Your task to perform on an android device: Clear the shopping cart on ebay. Add logitech g903 to the cart on ebay, then select checkout. Image 0: 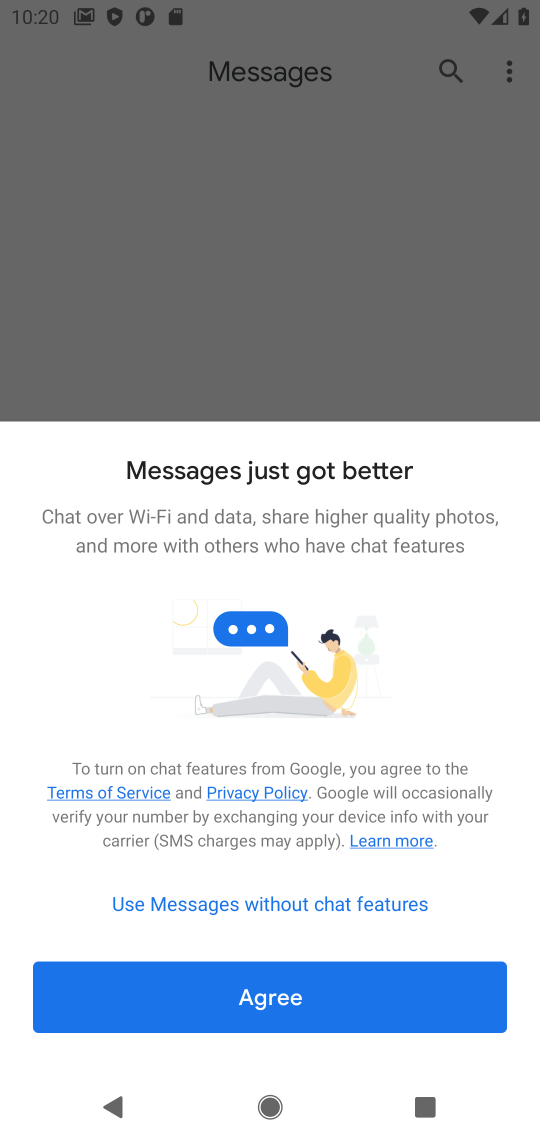
Step 0: press home button
Your task to perform on an android device: Clear the shopping cart on ebay. Add logitech g903 to the cart on ebay, then select checkout. Image 1: 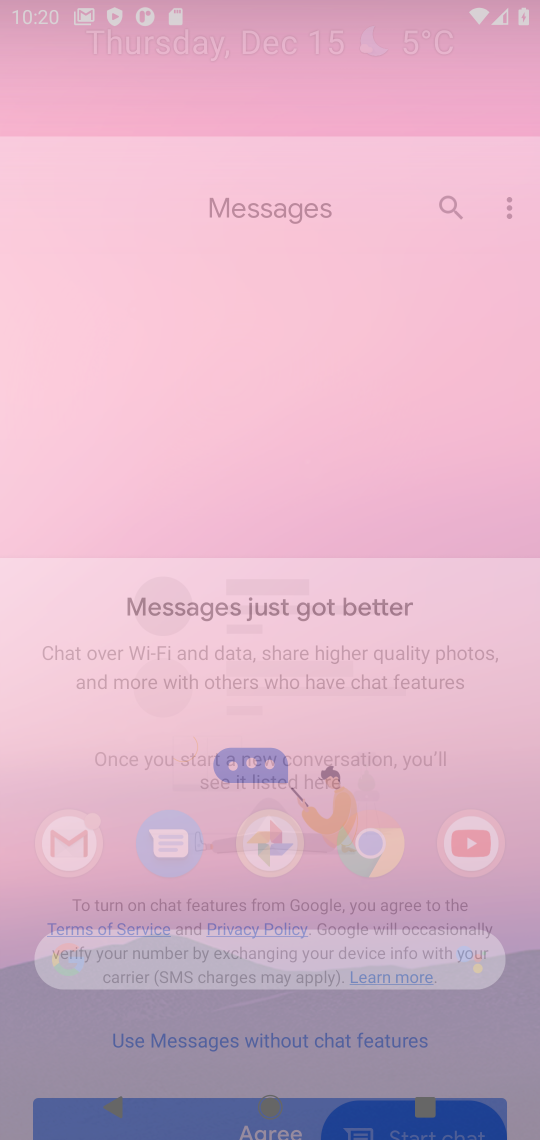
Step 1: press home button
Your task to perform on an android device: Clear the shopping cart on ebay. Add logitech g903 to the cart on ebay, then select checkout. Image 2: 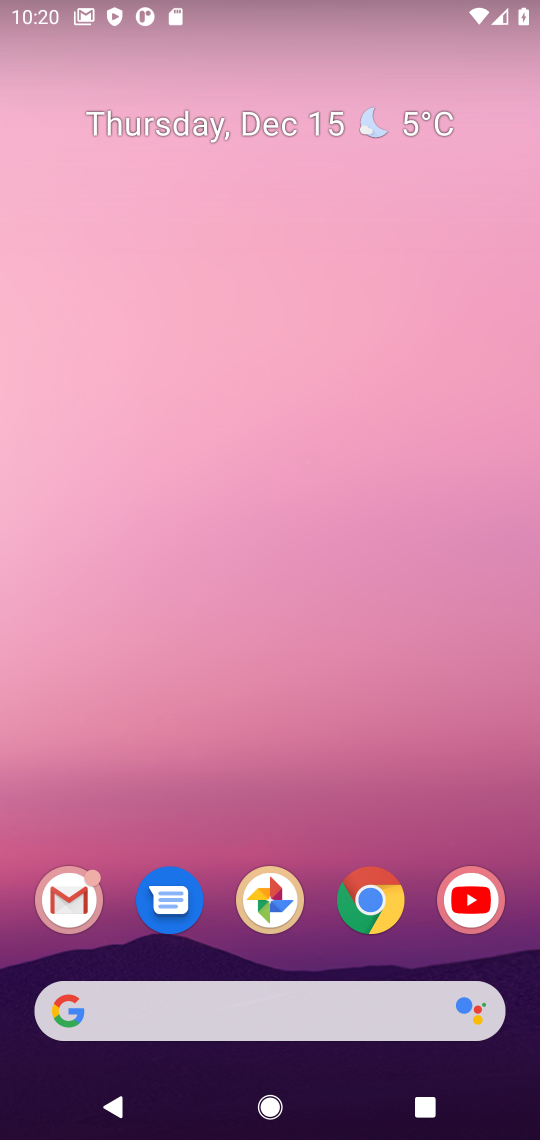
Step 2: click (350, 917)
Your task to perform on an android device: Clear the shopping cart on ebay. Add logitech g903 to the cart on ebay, then select checkout. Image 3: 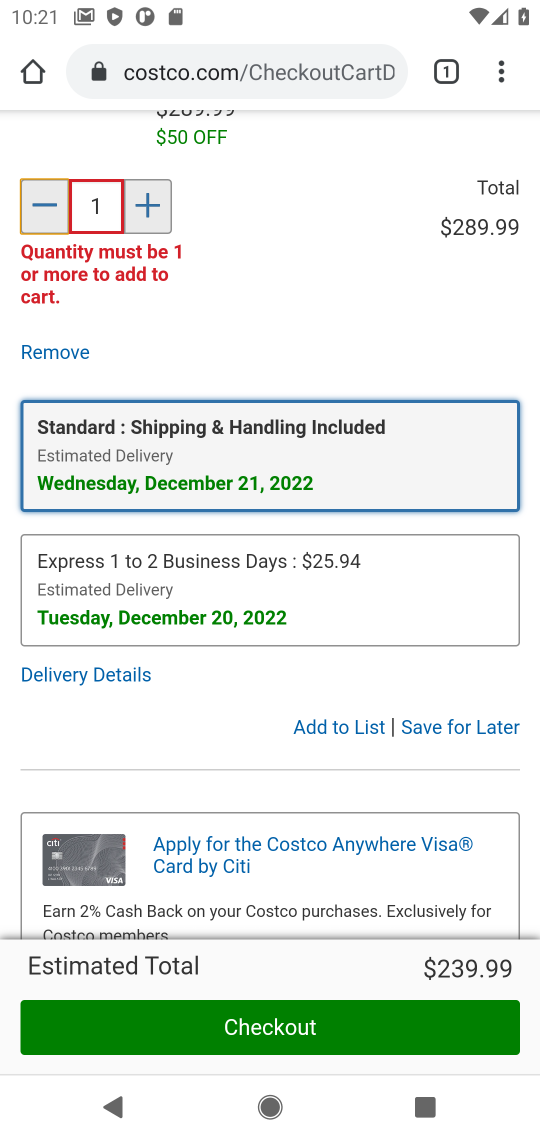
Step 3: click (245, 61)
Your task to perform on an android device: Clear the shopping cart on ebay. Add logitech g903 to the cart on ebay, then select checkout. Image 4: 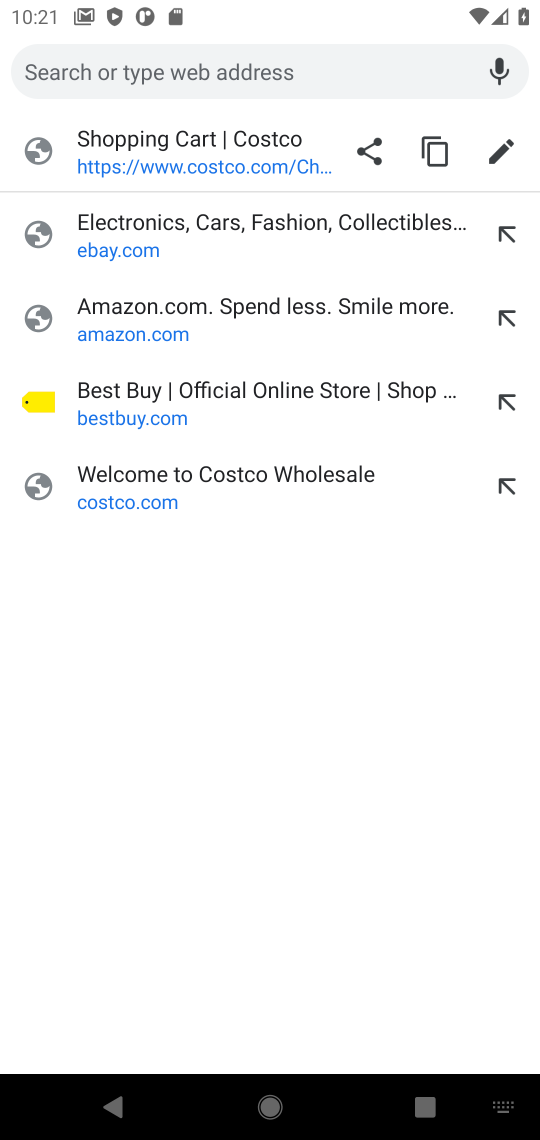
Step 4: type "ebay"
Your task to perform on an android device: Clear the shopping cart on ebay. Add logitech g903 to the cart on ebay, then select checkout. Image 5: 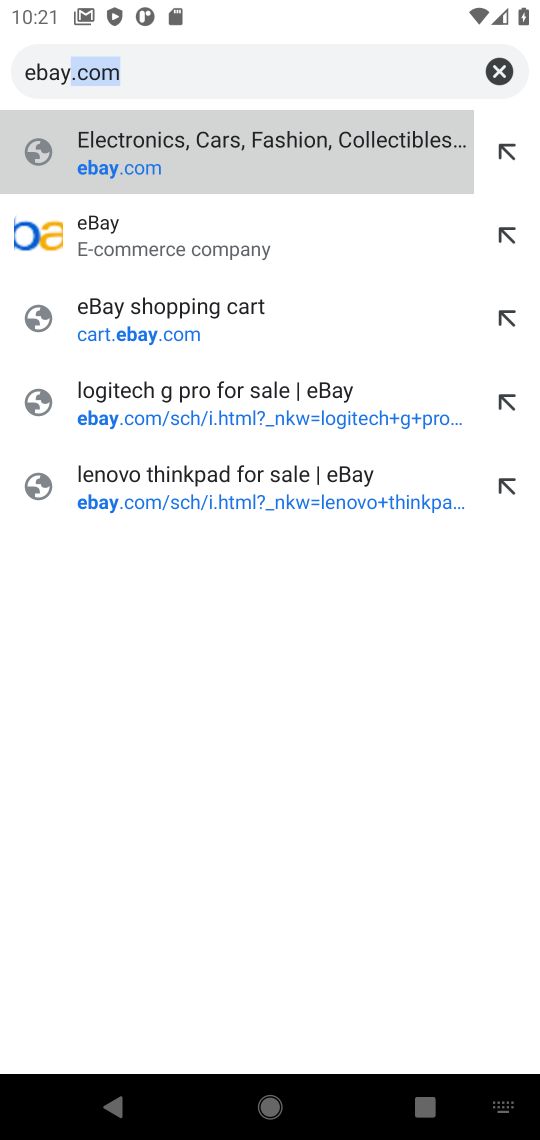
Step 5: click (157, 167)
Your task to perform on an android device: Clear the shopping cart on ebay. Add logitech g903 to the cart on ebay, then select checkout. Image 6: 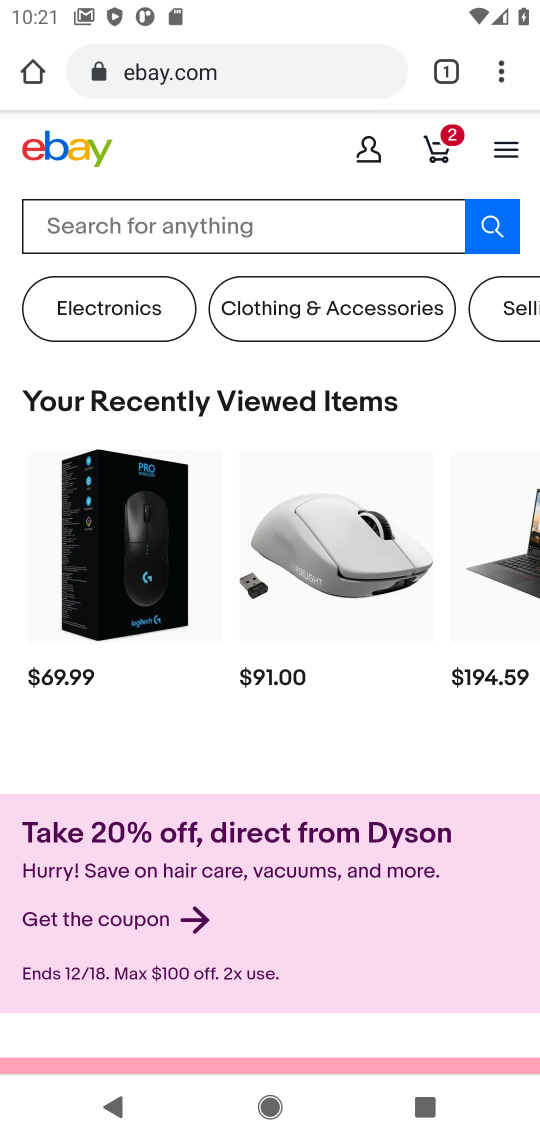
Step 6: click (437, 157)
Your task to perform on an android device: Clear the shopping cart on ebay. Add logitech g903 to the cart on ebay, then select checkout. Image 7: 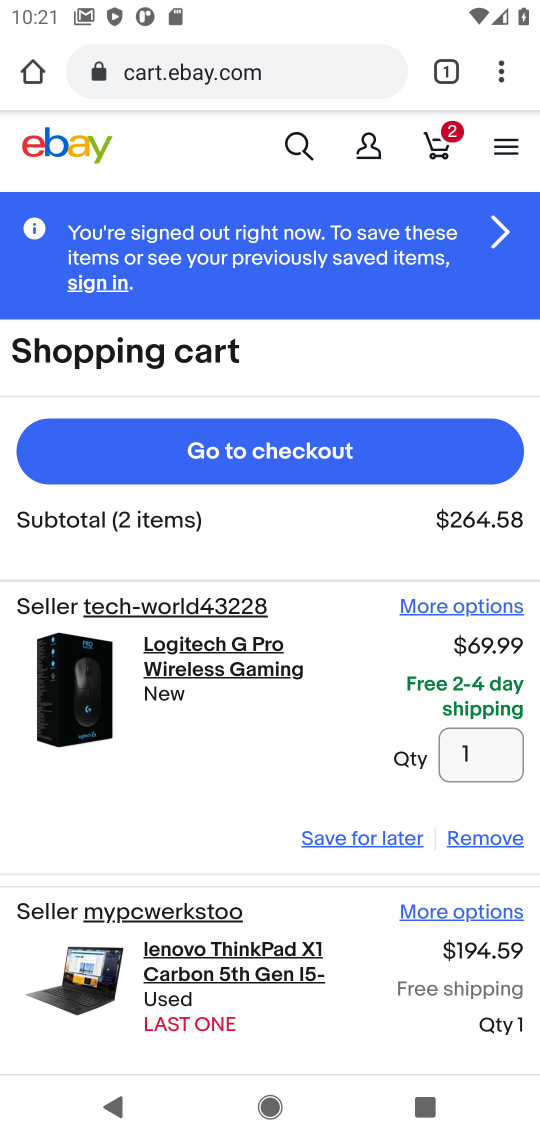
Step 7: click (464, 837)
Your task to perform on an android device: Clear the shopping cart on ebay. Add logitech g903 to the cart on ebay, then select checkout. Image 8: 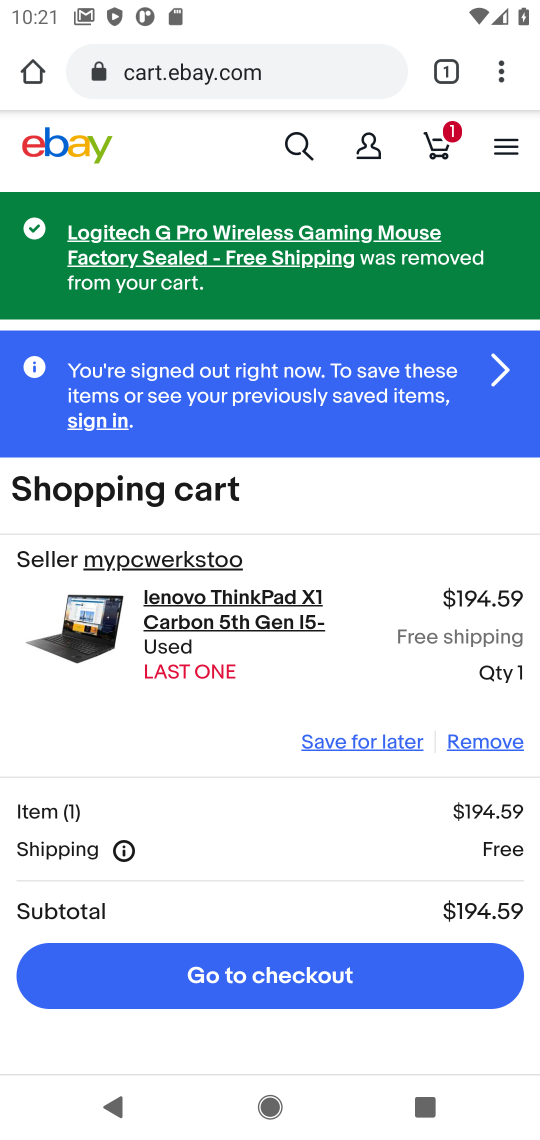
Step 8: click (471, 740)
Your task to perform on an android device: Clear the shopping cart on ebay. Add logitech g903 to the cart on ebay, then select checkout. Image 9: 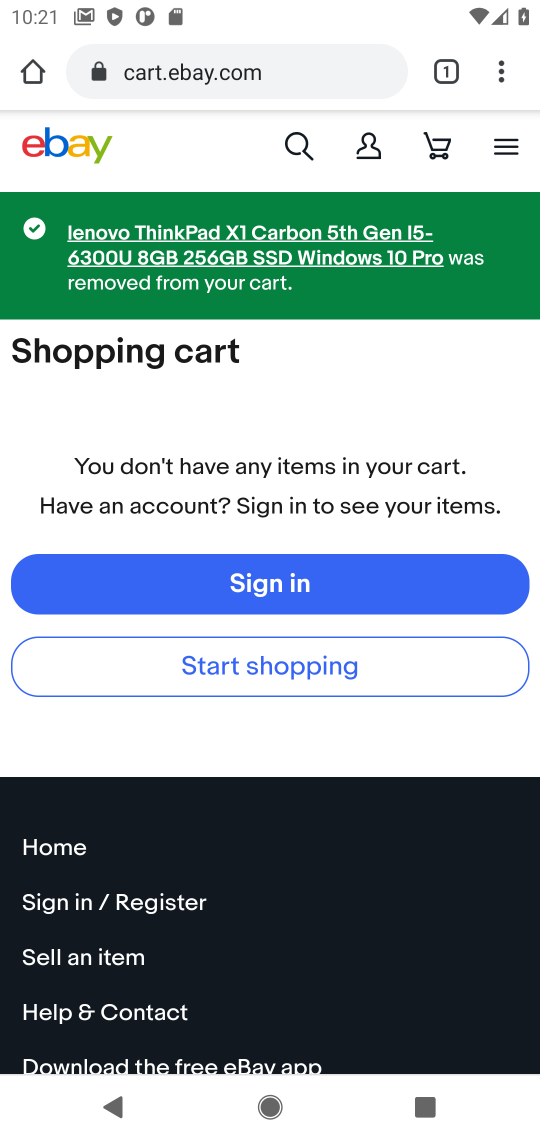
Step 9: click (304, 156)
Your task to perform on an android device: Clear the shopping cart on ebay. Add logitech g903 to the cart on ebay, then select checkout. Image 10: 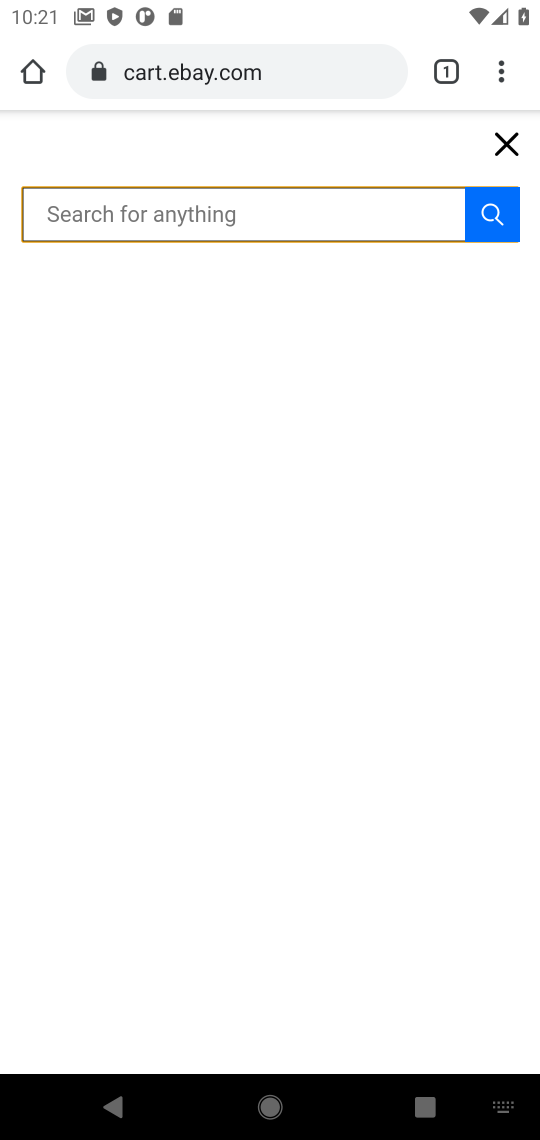
Step 10: click (264, 217)
Your task to perform on an android device: Clear the shopping cart on ebay. Add logitech g903 to the cart on ebay, then select checkout. Image 11: 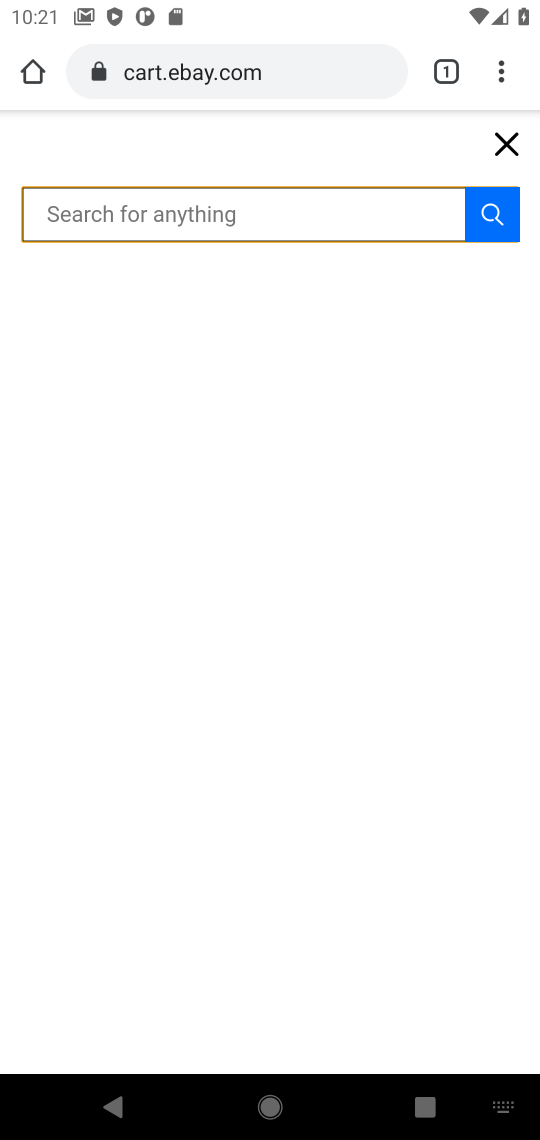
Step 11: type "logitech g903"
Your task to perform on an android device: Clear the shopping cart on ebay. Add logitech g903 to the cart on ebay, then select checkout. Image 12: 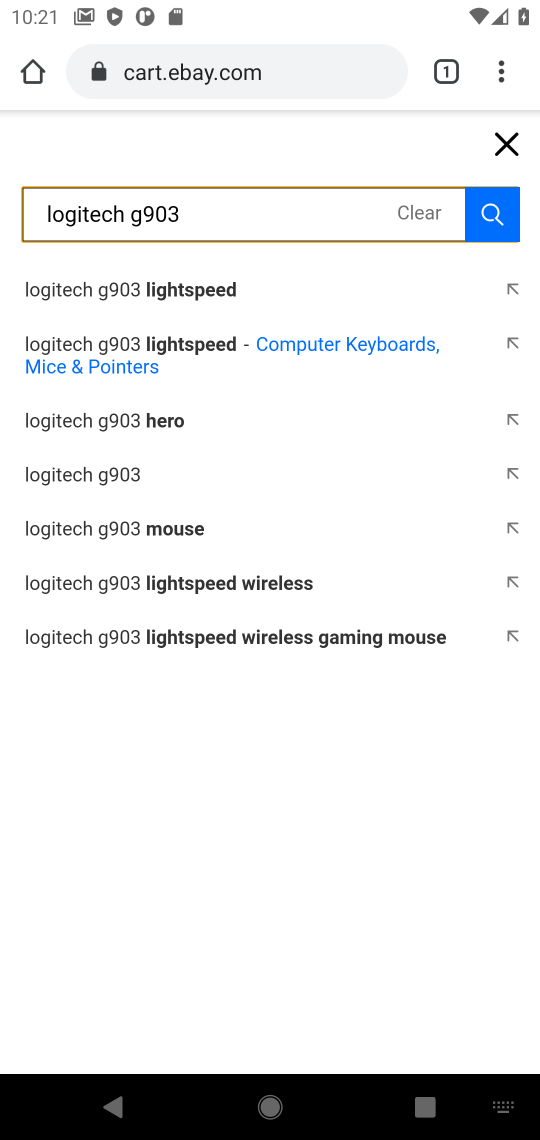
Step 12: click (499, 218)
Your task to perform on an android device: Clear the shopping cart on ebay. Add logitech g903 to the cart on ebay, then select checkout. Image 13: 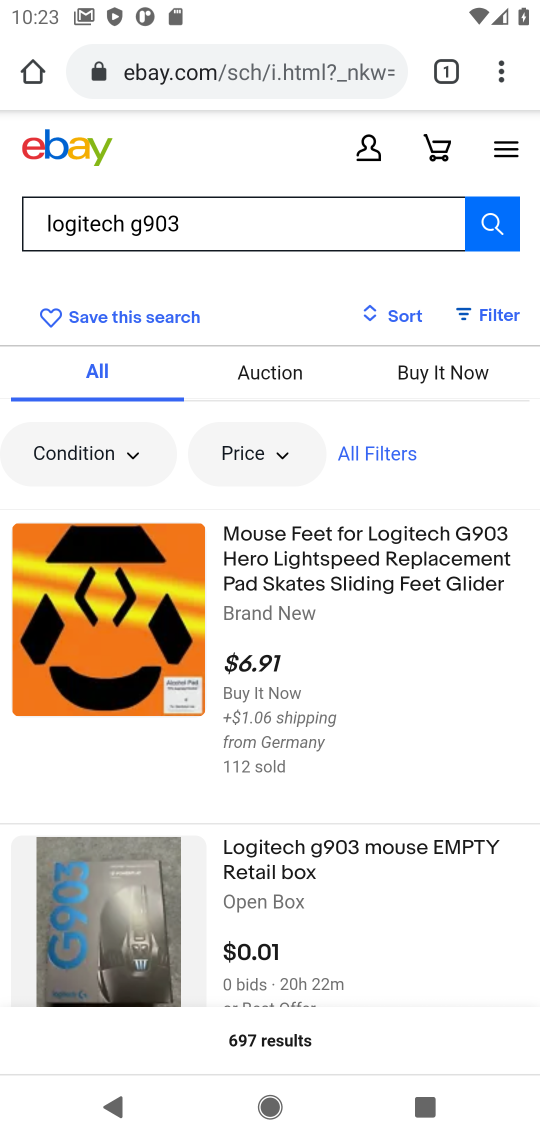
Step 13: click (438, 154)
Your task to perform on an android device: Clear the shopping cart on ebay. Add logitech g903 to the cart on ebay, then select checkout. Image 14: 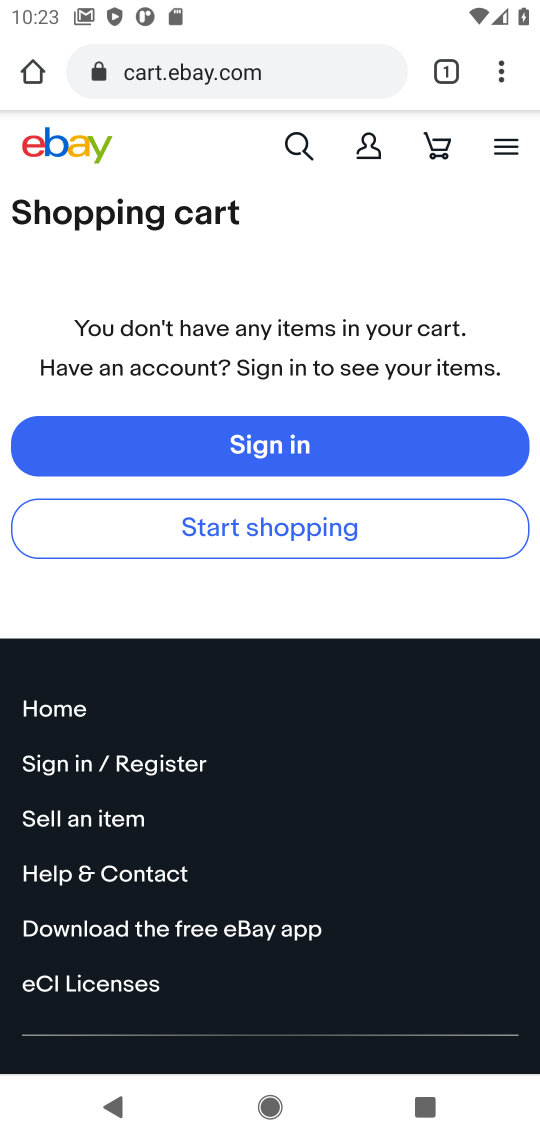
Step 14: click (298, 146)
Your task to perform on an android device: Clear the shopping cart on ebay. Add logitech g903 to the cart on ebay, then select checkout. Image 15: 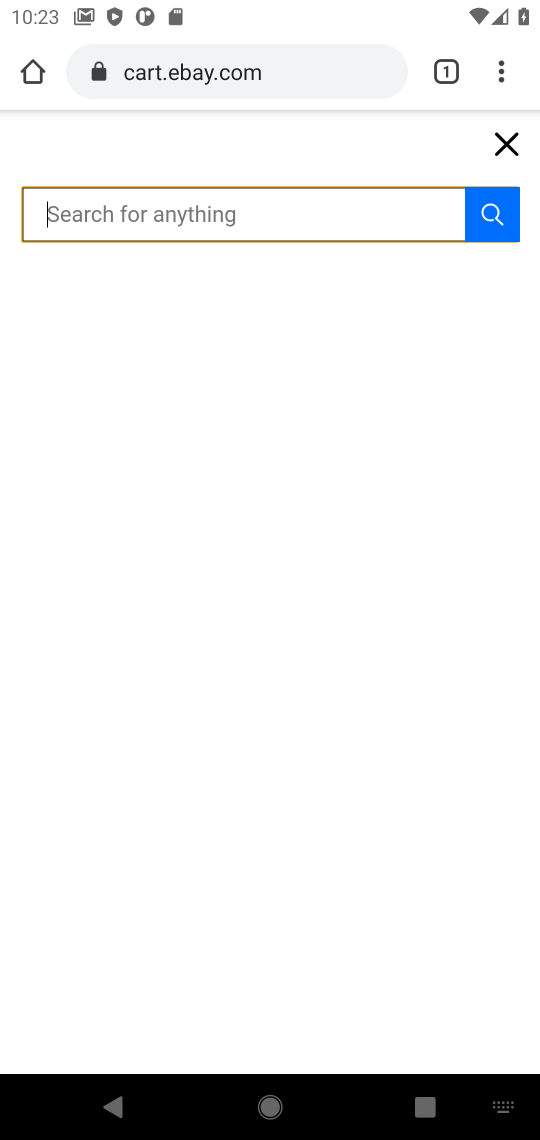
Step 15: type "logitech g903"
Your task to perform on an android device: Clear the shopping cart on ebay. Add logitech g903 to the cart on ebay, then select checkout. Image 16: 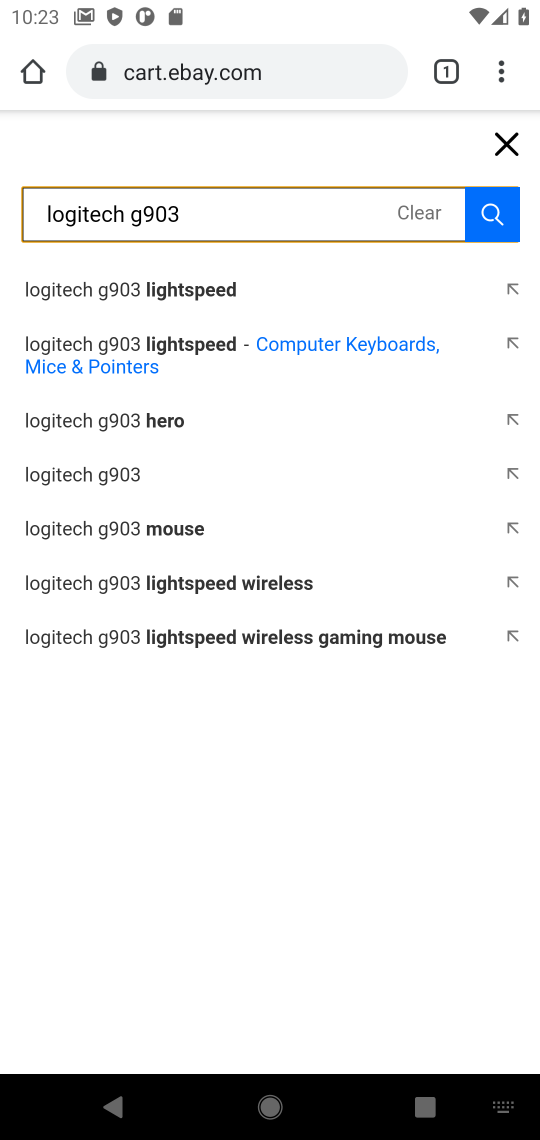
Step 16: press enter
Your task to perform on an android device: Clear the shopping cart on ebay. Add logitech g903 to the cart on ebay, then select checkout. Image 17: 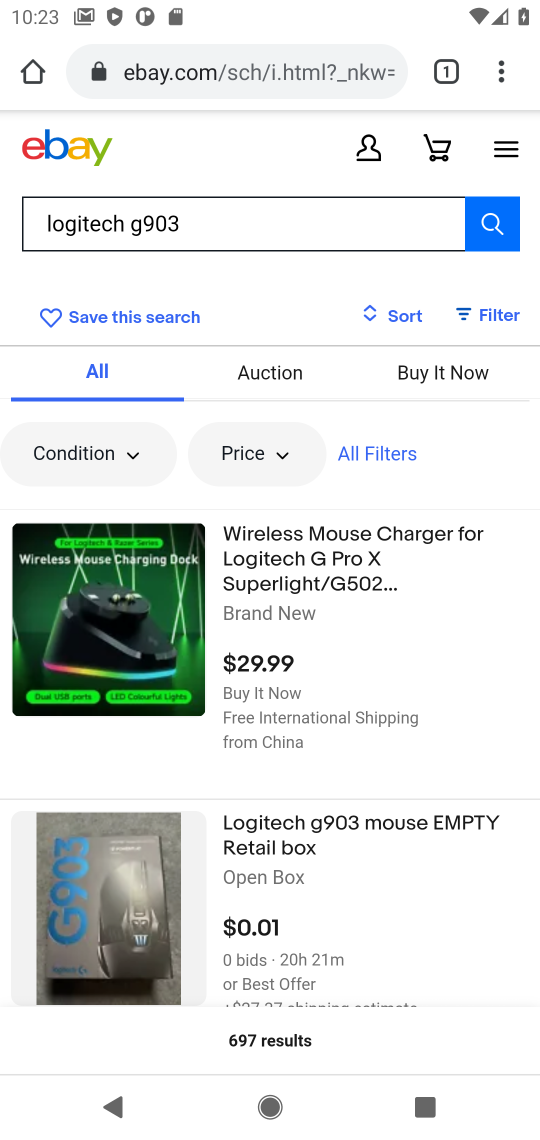
Step 17: drag from (397, 666) to (316, 216)
Your task to perform on an android device: Clear the shopping cart on ebay. Add logitech g903 to the cart on ebay, then select checkout. Image 18: 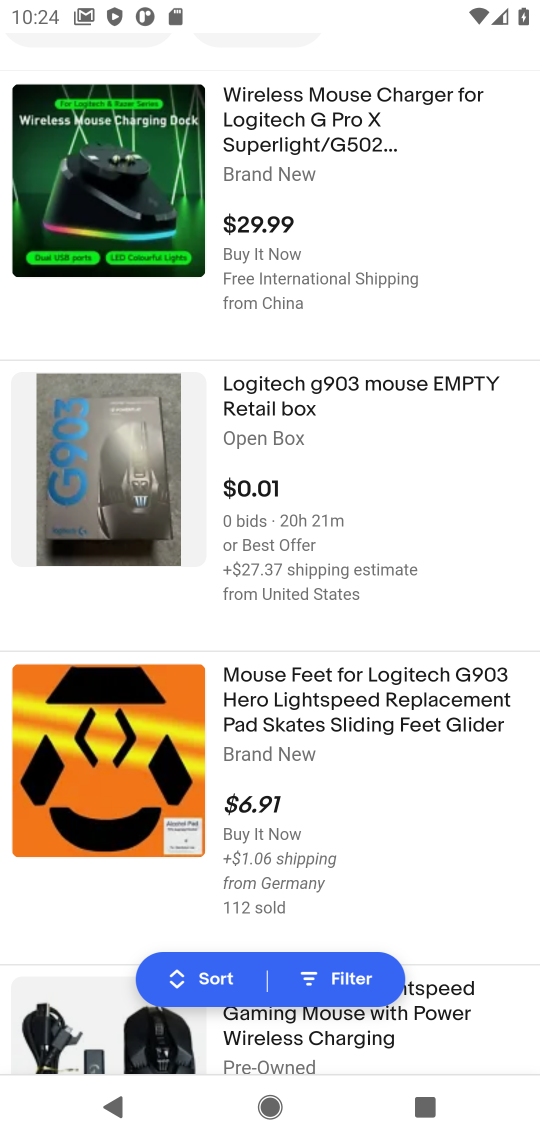
Step 18: click (158, 430)
Your task to perform on an android device: Clear the shopping cart on ebay. Add logitech g903 to the cart on ebay, then select checkout. Image 19: 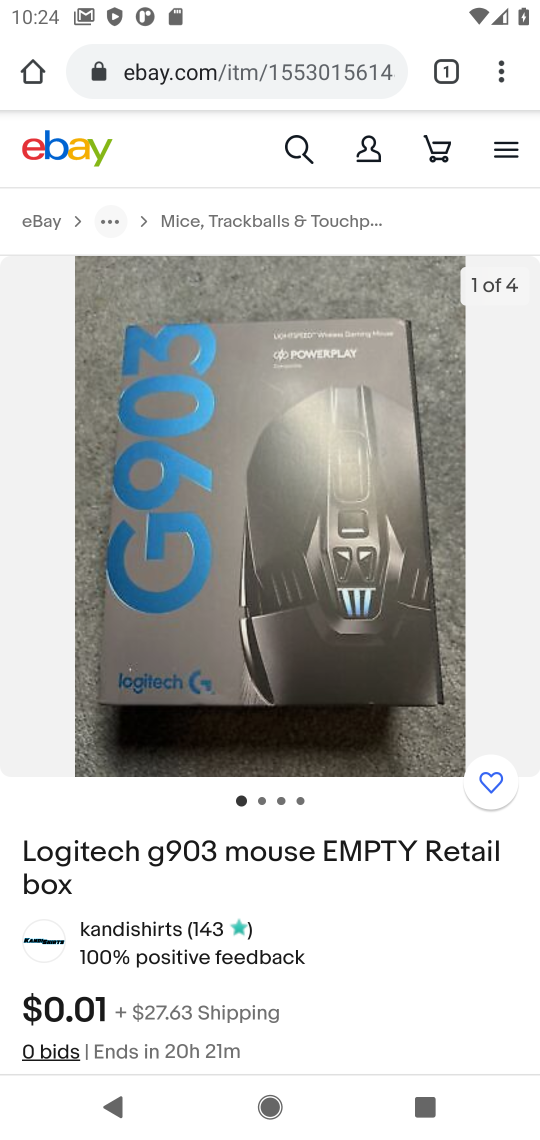
Step 19: task complete